Your task to perform on an android device: Open settings Image 0: 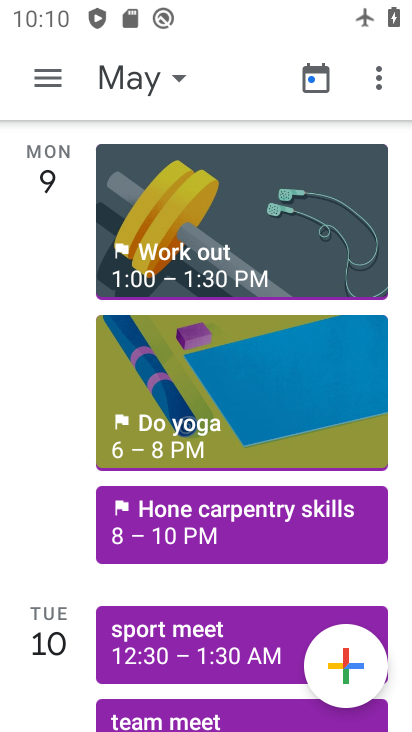
Step 0: press home button
Your task to perform on an android device: Open settings Image 1: 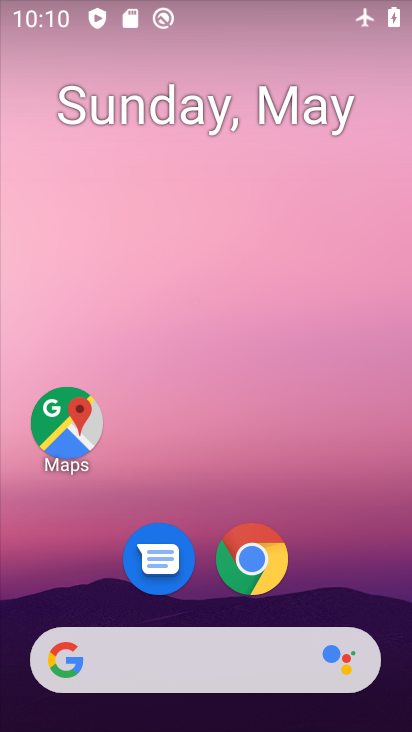
Step 1: drag from (390, 527) to (314, 109)
Your task to perform on an android device: Open settings Image 2: 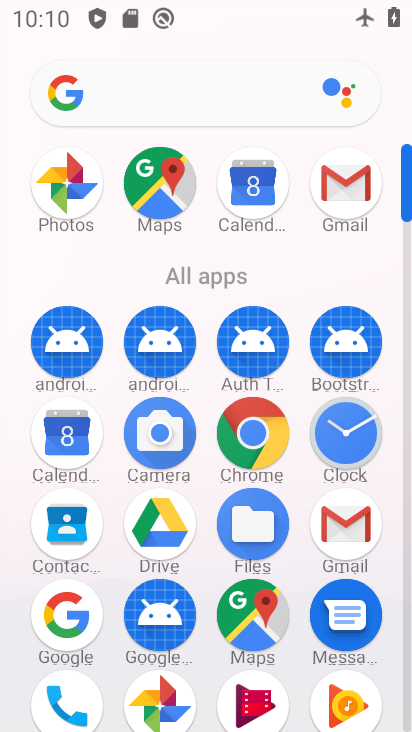
Step 2: click (408, 721)
Your task to perform on an android device: Open settings Image 3: 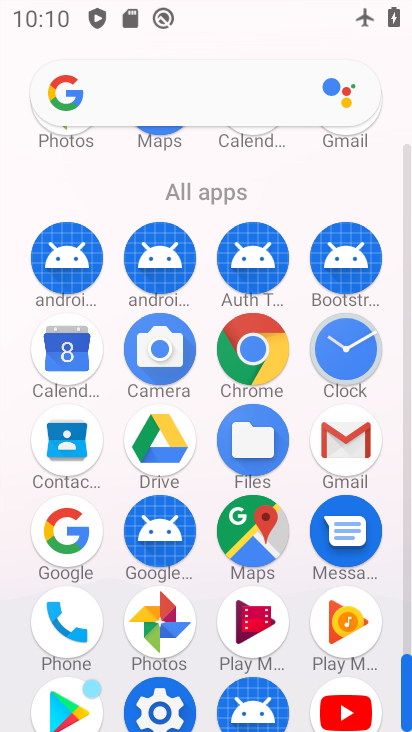
Step 3: click (158, 706)
Your task to perform on an android device: Open settings Image 4: 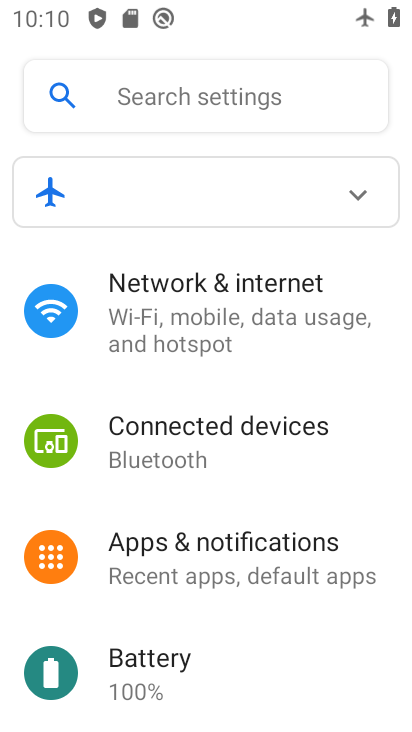
Step 4: task complete